Your task to perform on an android device: Go to Yahoo.com Image 0: 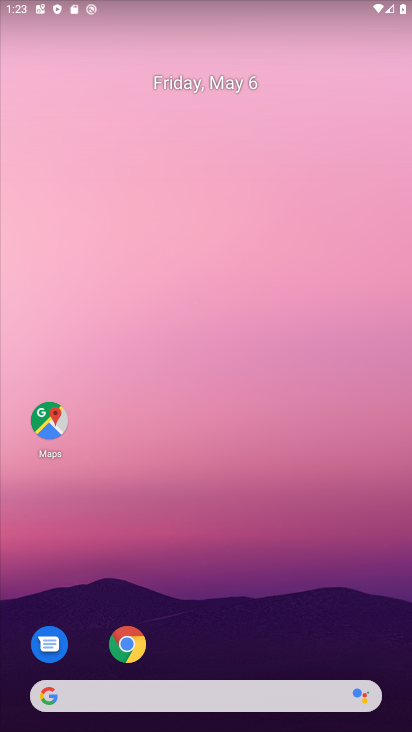
Step 0: click (226, 696)
Your task to perform on an android device: Go to Yahoo.com Image 1: 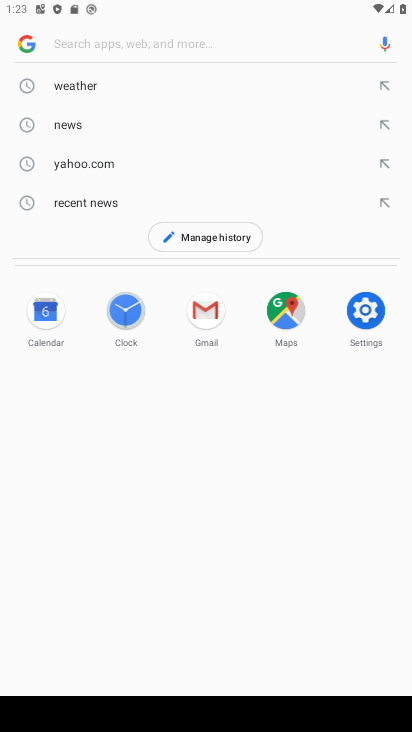
Step 1: click (130, 166)
Your task to perform on an android device: Go to Yahoo.com Image 2: 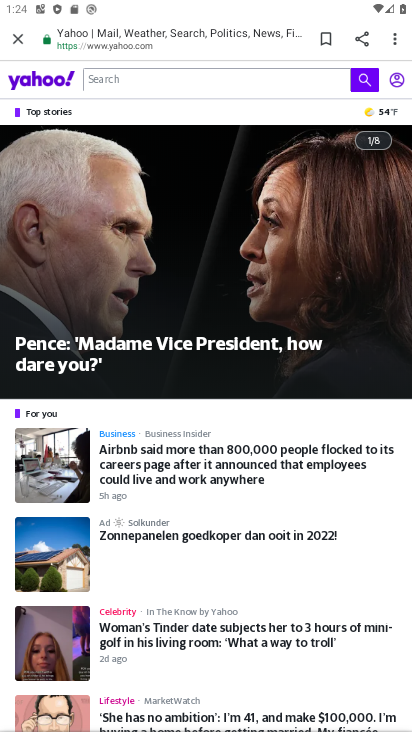
Step 2: task complete